Your task to perform on an android device: Open calendar and show me the fourth week of next month Image 0: 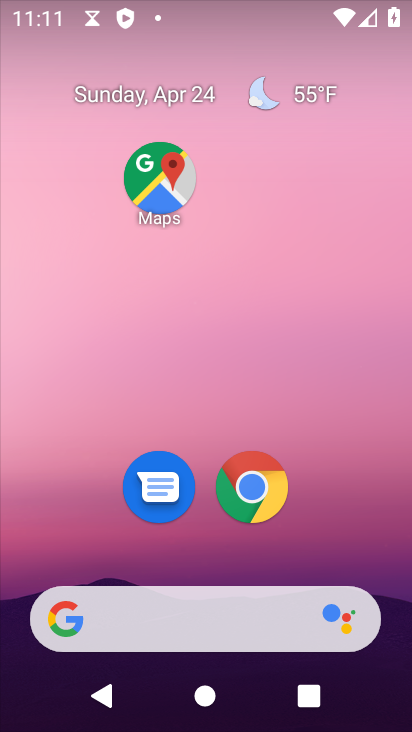
Step 0: drag from (342, 544) to (345, 163)
Your task to perform on an android device: Open calendar and show me the fourth week of next month Image 1: 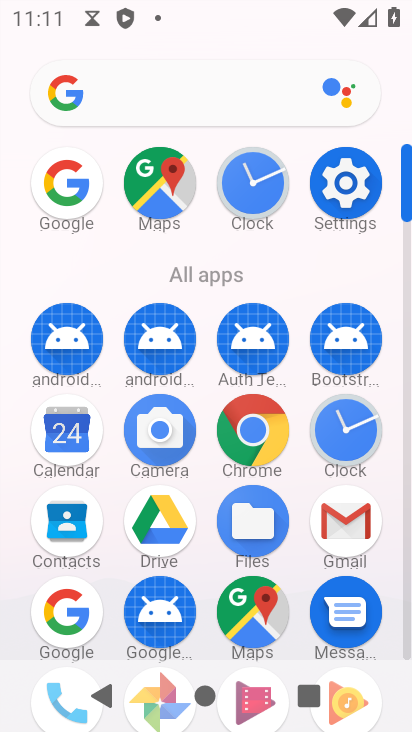
Step 1: click (52, 439)
Your task to perform on an android device: Open calendar and show me the fourth week of next month Image 2: 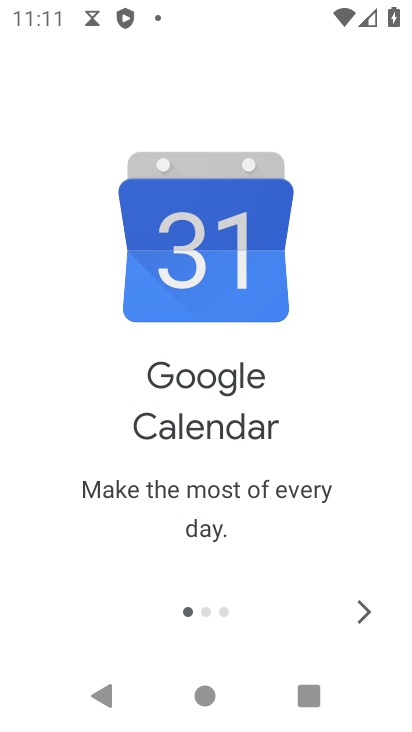
Step 2: click (352, 610)
Your task to perform on an android device: Open calendar and show me the fourth week of next month Image 3: 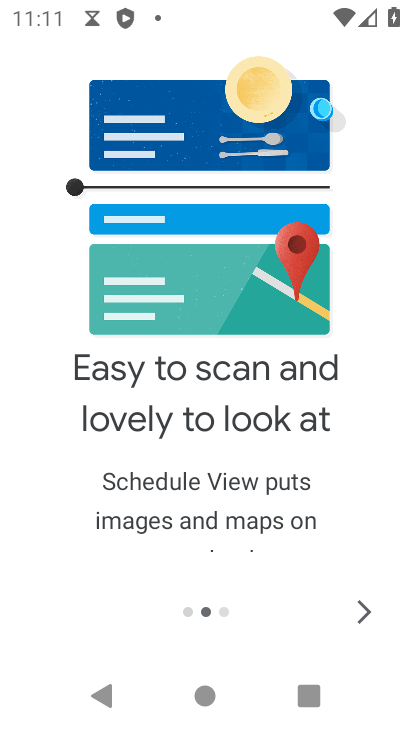
Step 3: click (350, 609)
Your task to perform on an android device: Open calendar and show me the fourth week of next month Image 4: 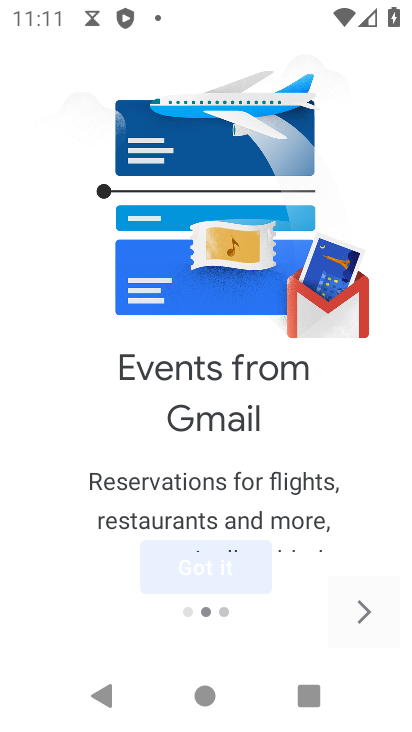
Step 4: click (350, 609)
Your task to perform on an android device: Open calendar and show me the fourth week of next month Image 5: 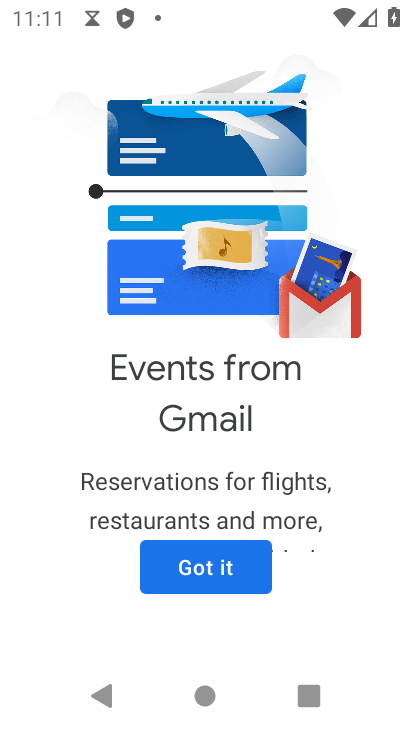
Step 5: click (230, 567)
Your task to perform on an android device: Open calendar and show me the fourth week of next month Image 6: 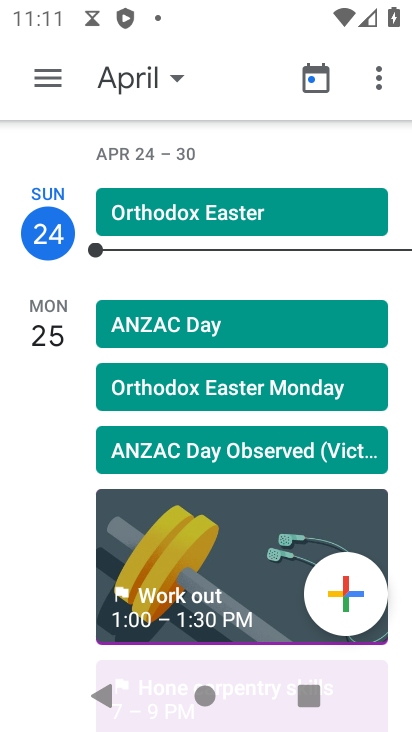
Step 6: click (147, 89)
Your task to perform on an android device: Open calendar and show me the fourth week of next month Image 7: 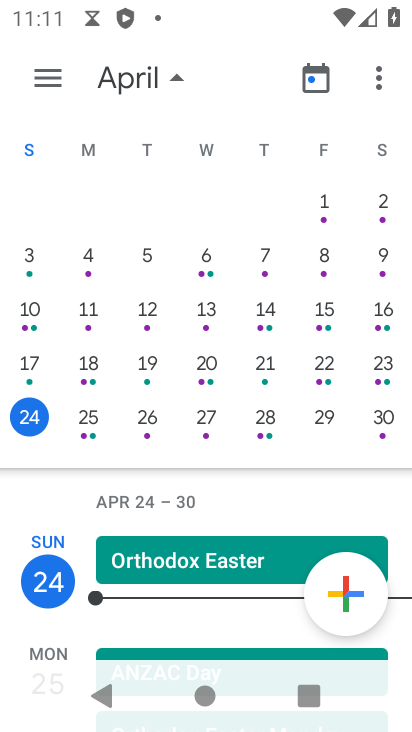
Step 7: drag from (308, 347) to (0, 327)
Your task to perform on an android device: Open calendar and show me the fourth week of next month Image 8: 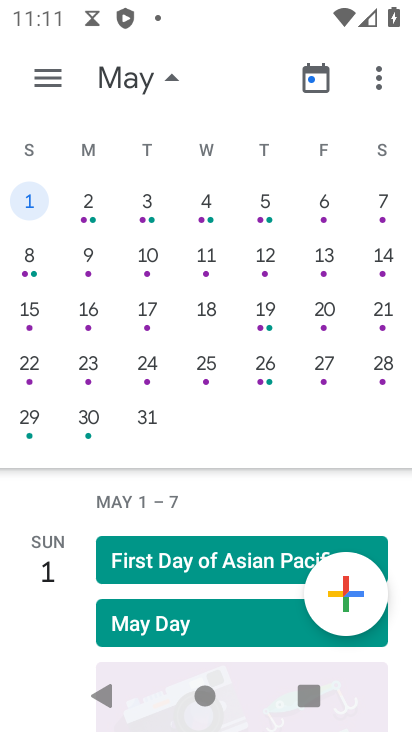
Step 8: click (27, 360)
Your task to perform on an android device: Open calendar and show me the fourth week of next month Image 9: 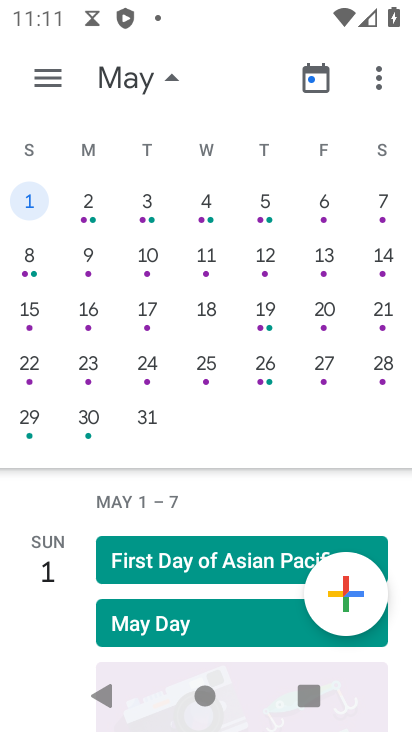
Step 9: click (30, 365)
Your task to perform on an android device: Open calendar and show me the fourth week of next month Image 10: 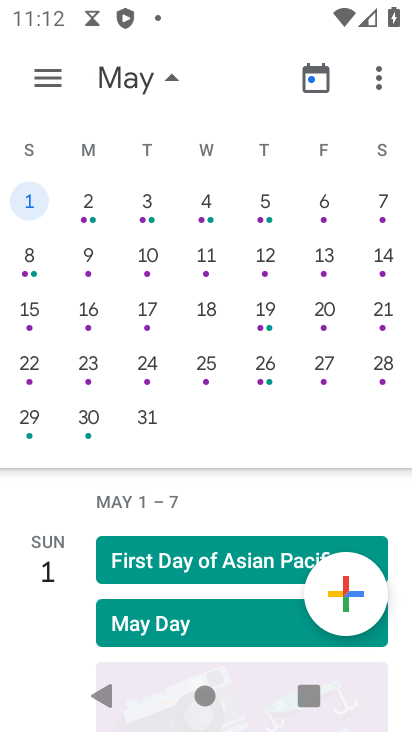
Step 10: click (35, 371)
Your task to perform on an android device: Open calendar and show me the fourth week of next month Image 11: 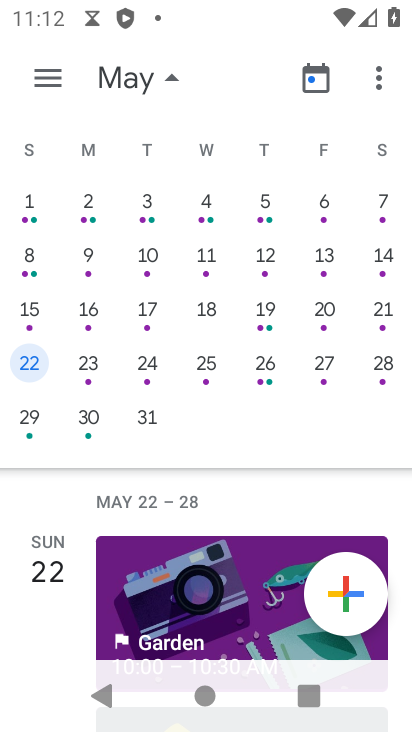
Step 11: task complete